Your task to perform on an android device: Go to wifi settings Image 0: 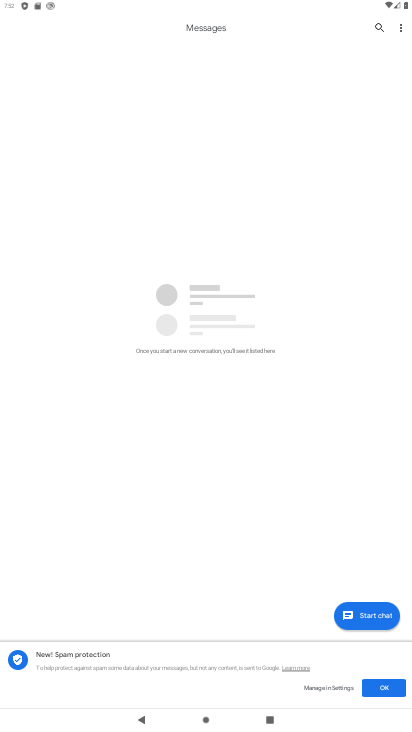
Step 0: task complete